Your task to perform on an android device: toggle notifications settings in the gmail app Image 0: 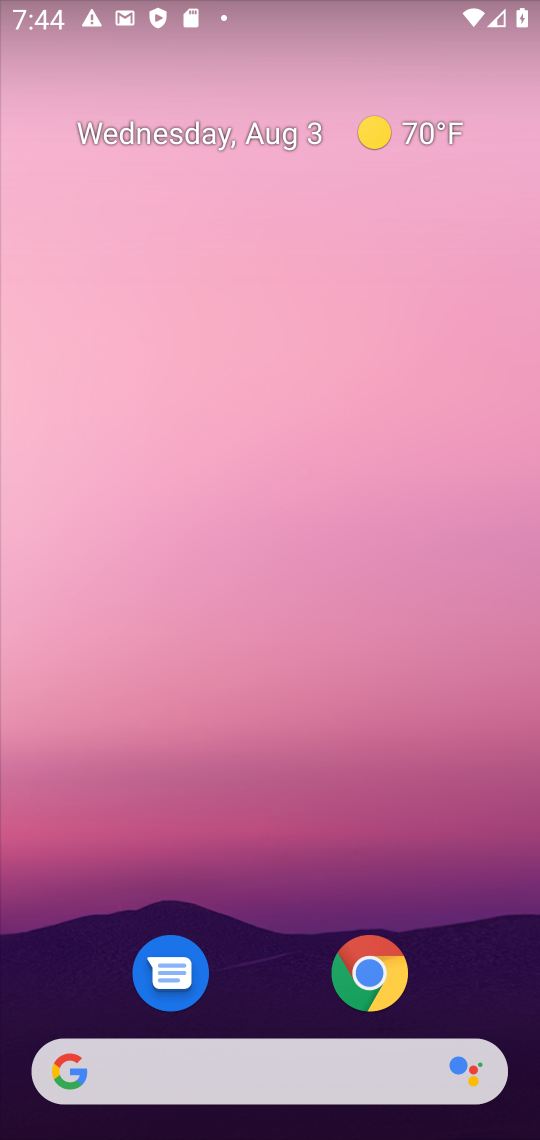
Step 0: press home button
Your task to perform on an android device: toggle notifications settings in the gmail app Image 1: 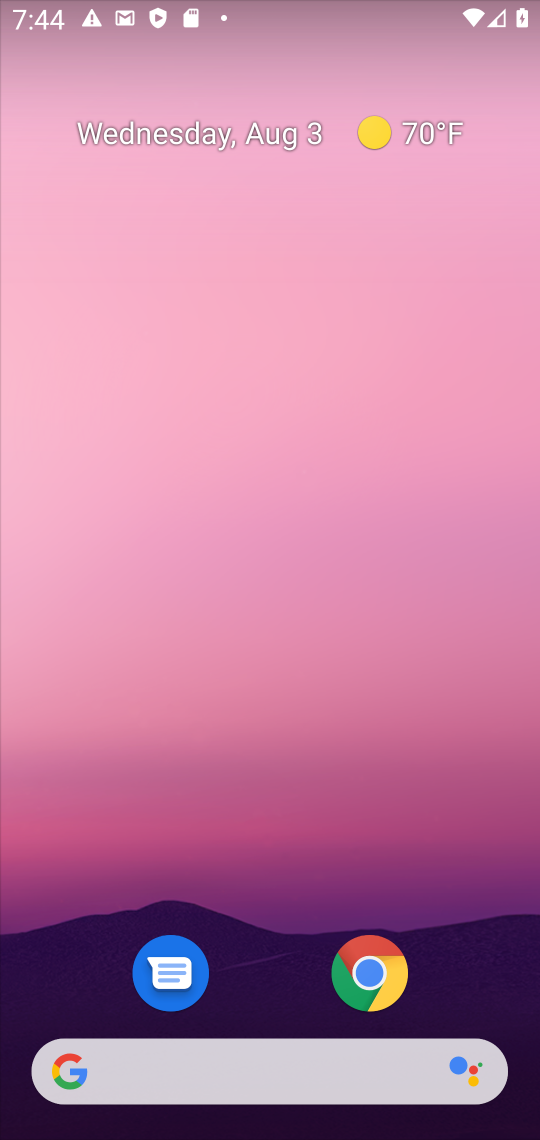
Step 1: drag from (274, 1000) to (351, 104)
Your task to perform on an android device: toggle notifications settings in the gmail app Image 2: 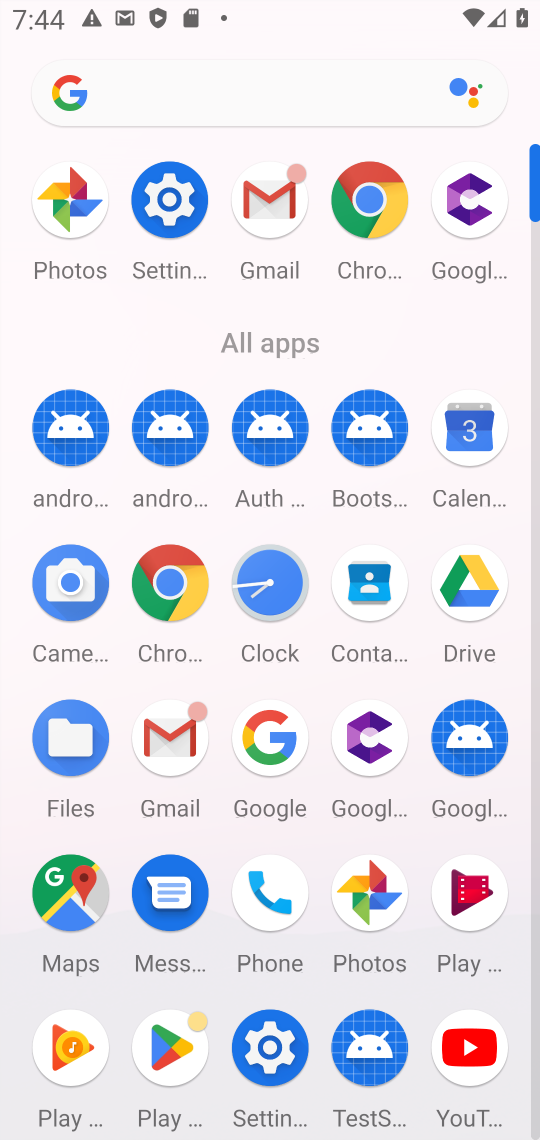
Step 2: click (267, 192)
Your task to perform on an android device: toggle notifications settings in the gmail app Image 3: 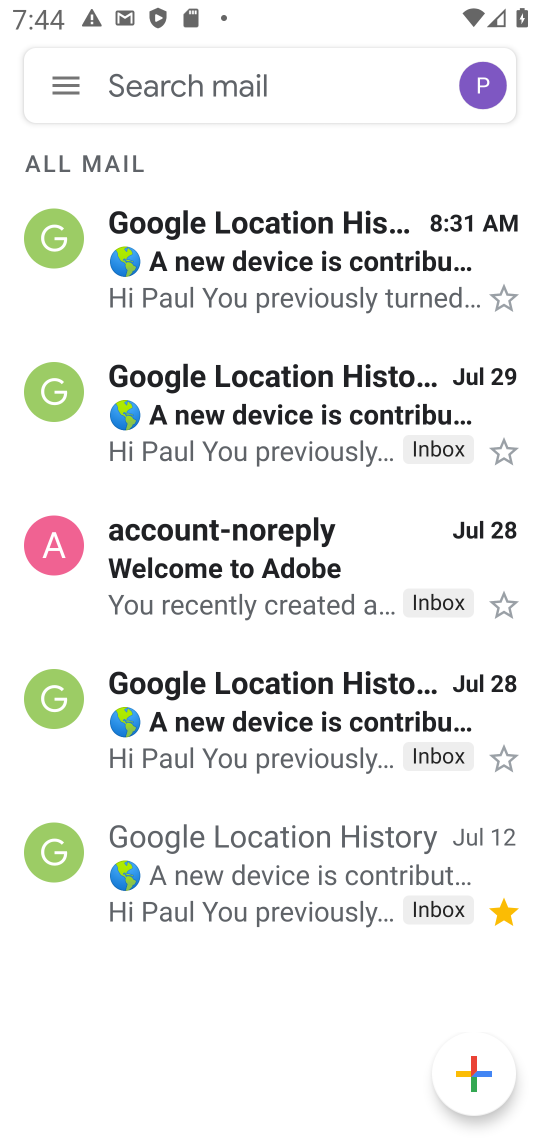
Step 3: click (65, 73)
Your task to perform on an android device: toggle notifications settings in the gmail app Image 4: 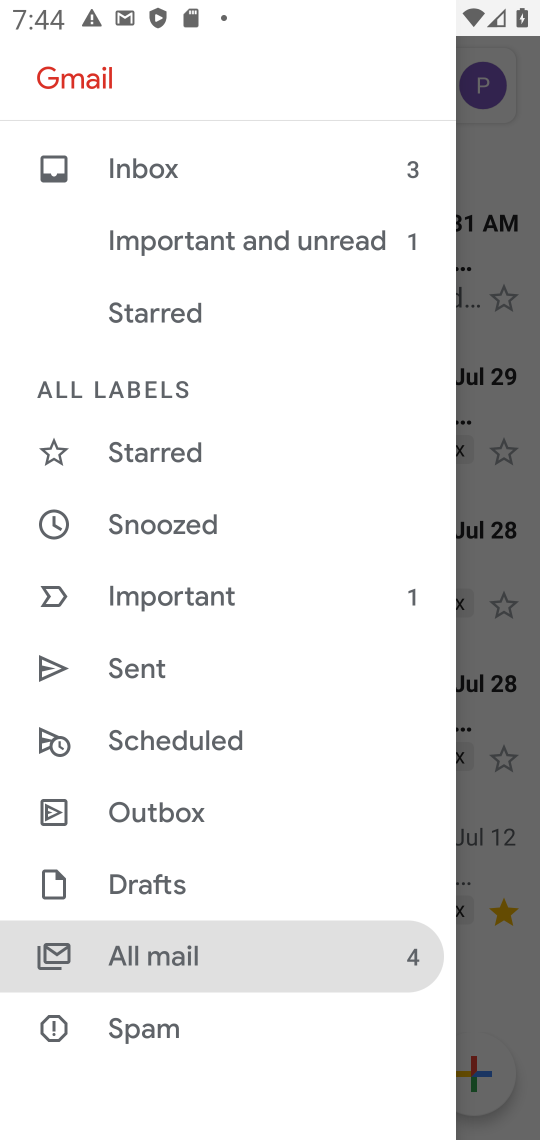
Step 4: drag from (231, 993) to (273, 259)
Your task to perform on an android device: toggle notifications settings in the gmail app Image 5: 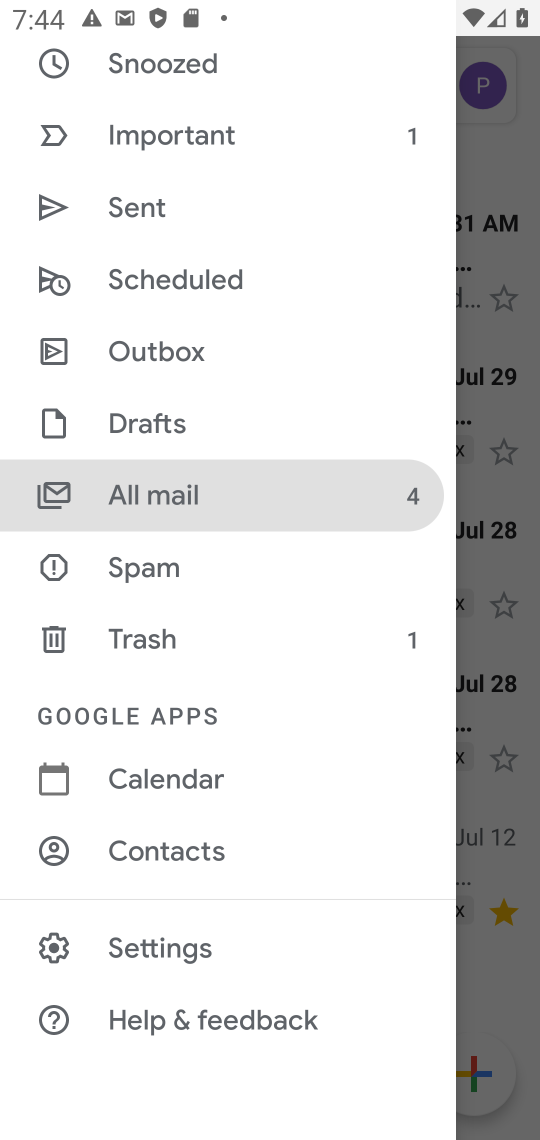
Step 5: click (220, 942)
Your task to perform on an android device: toggle notifications settings in the gmail app Image 6: 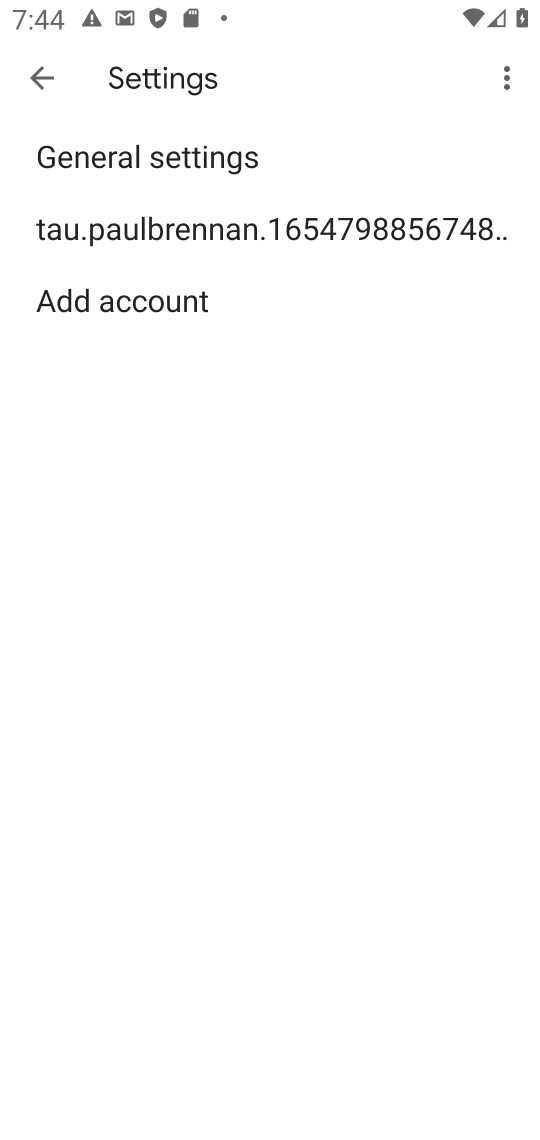
Step 6: click (268, 140)
Your task to perform on an android device: toggle notifications settings in the gmail app Image 7: 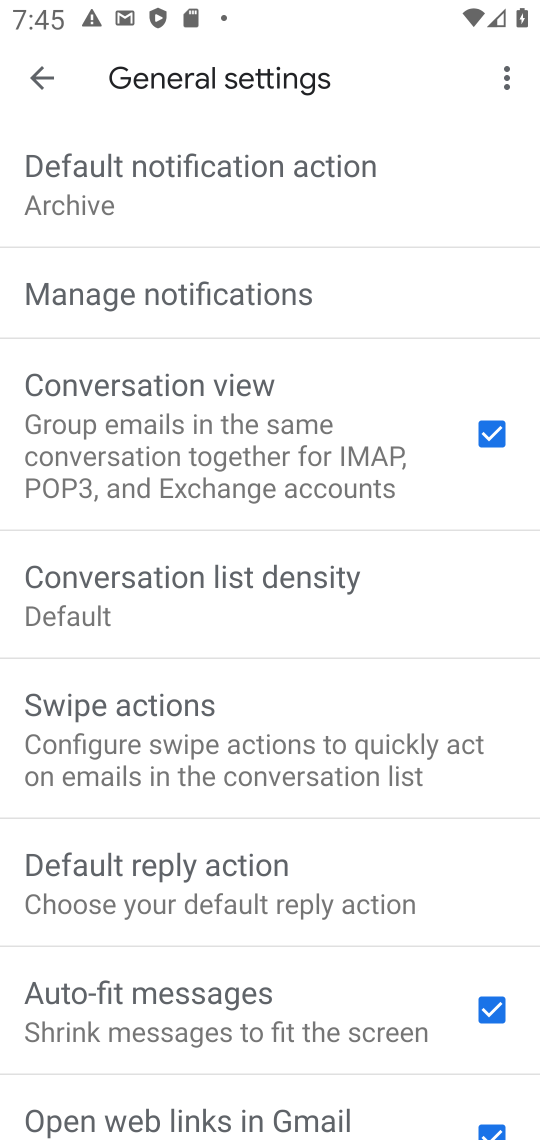
Step 7: click (335, 282)
Your task to perform on an android device: toggle notifications settings in the gmail app Image 8: 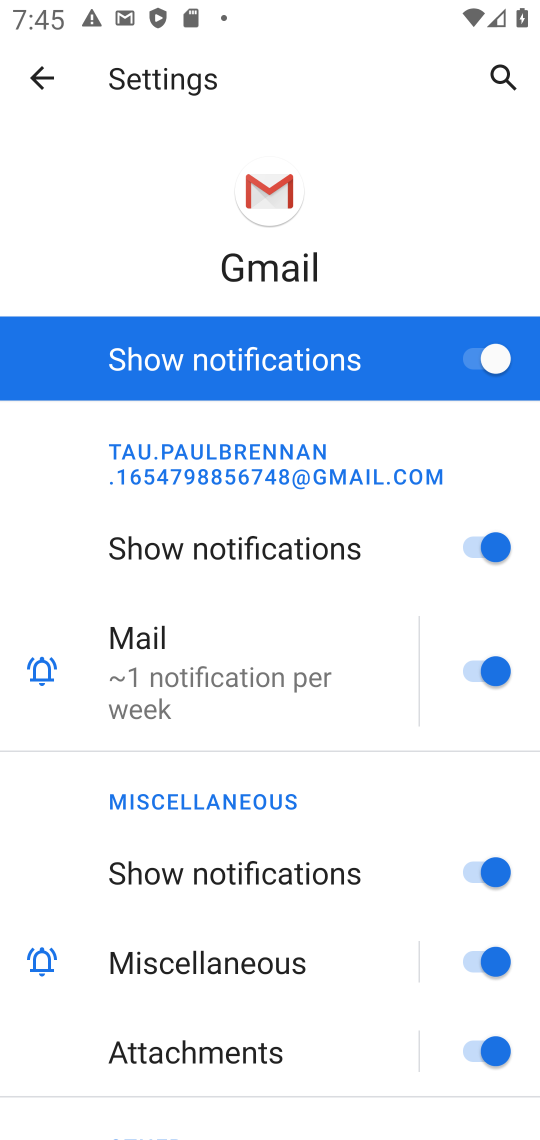
Step 8: click (471, 349)
Your task to perform on an android device: toggle notifications settings in the gmail app Image 9: 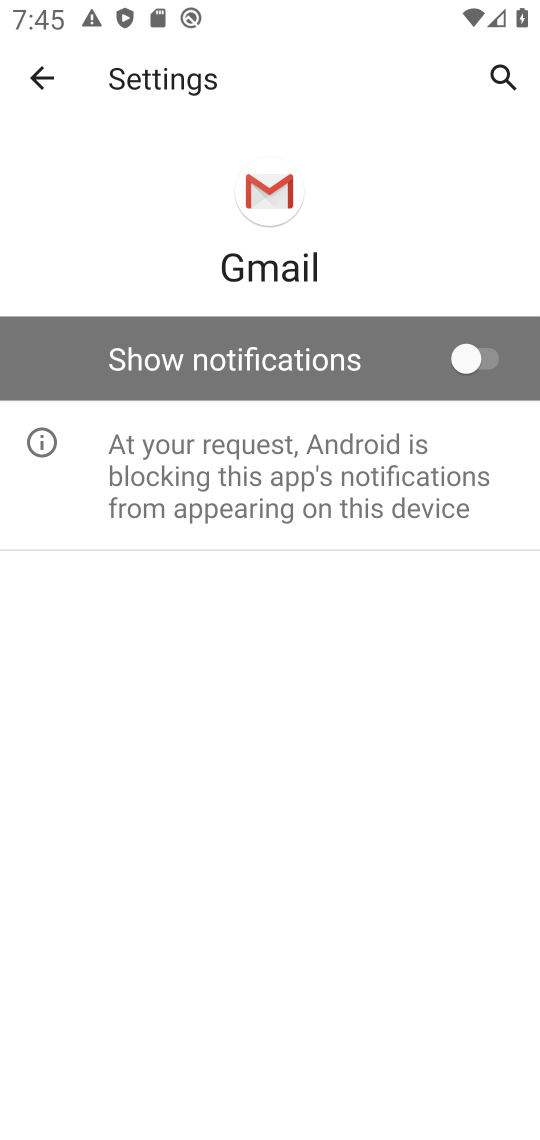
Step 9: task complete